Your task to perform on an android device: toggle data saver in the chrome app Image 0: 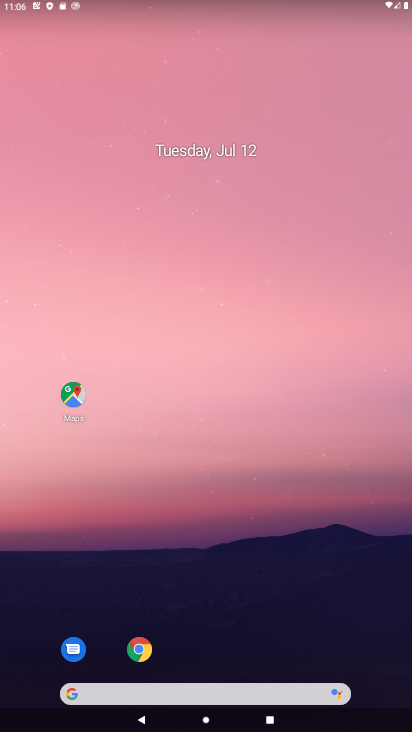
Step 0: click (138, 651)
Your task to perform on an android device: toggle data saver in the chrome app Image 1: 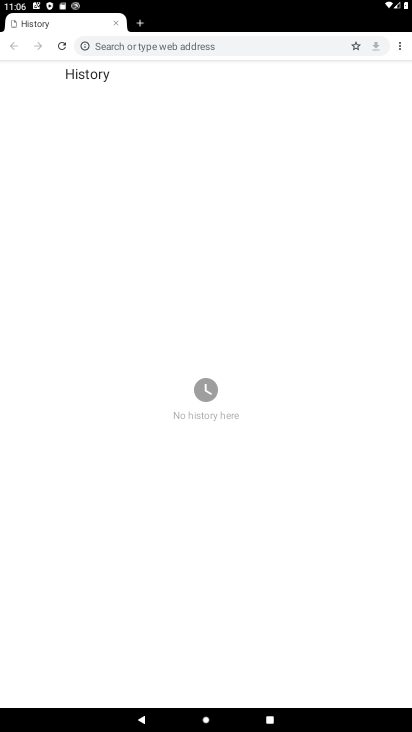
Step 1: click (399, 46)
Your task to perform on an android device: toggle data saver in the chrome app Image 2: 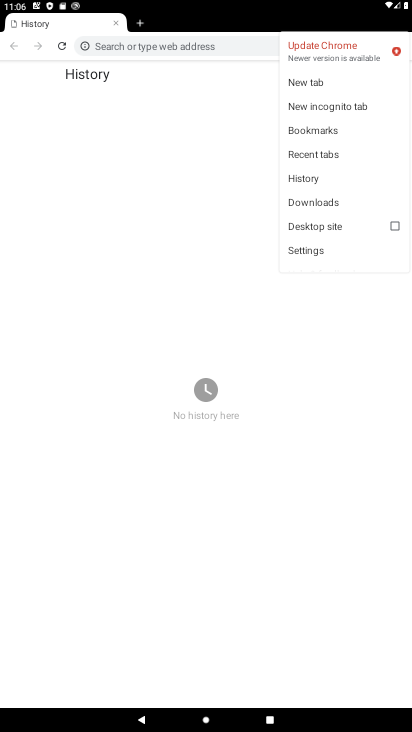
Step 2: click (314, 260)
Your task to perform on an android device: toggle data saver in the chrome app Image 3: 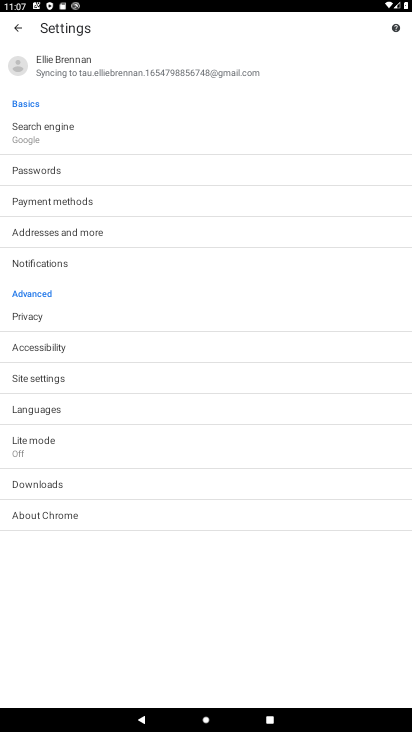
Step 3: click (34, 438)
Your task to perform on an android device: toggle data saver in the chrome app Image 4: 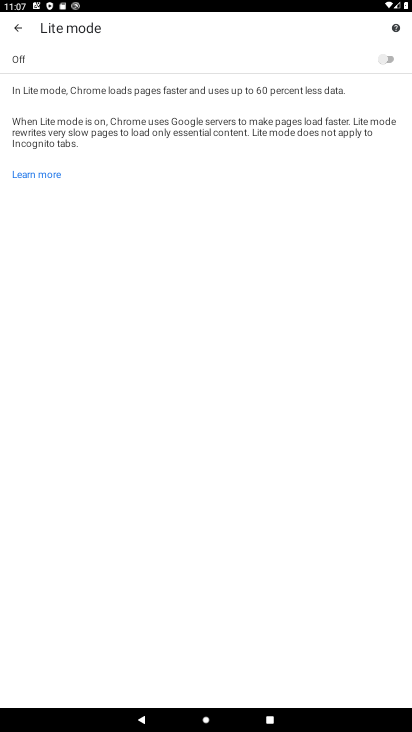
Step 4: click (390, 58)
Your task to perform on an android device: toggle data saver in the chrome app Image 5: 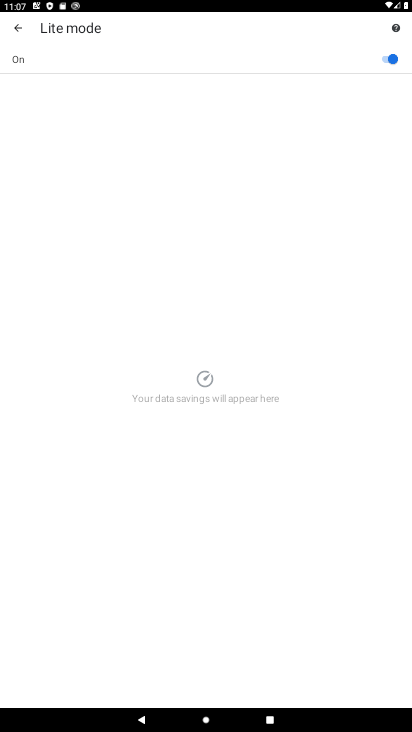
Step 5: task complete